Your task to perform on an android device: install app "ColorNote Notepad Notes" Image 0: 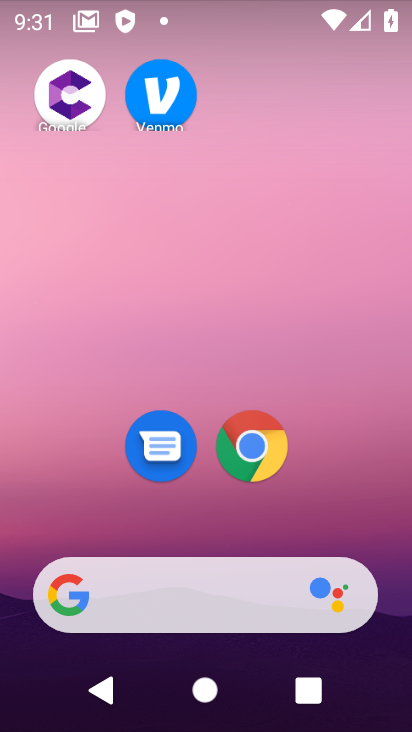
Step 0: drag from (196, 477) to (194, 62)
Your task to perform on an android device: install app "ColorNote Notepad Notes" Image 1: 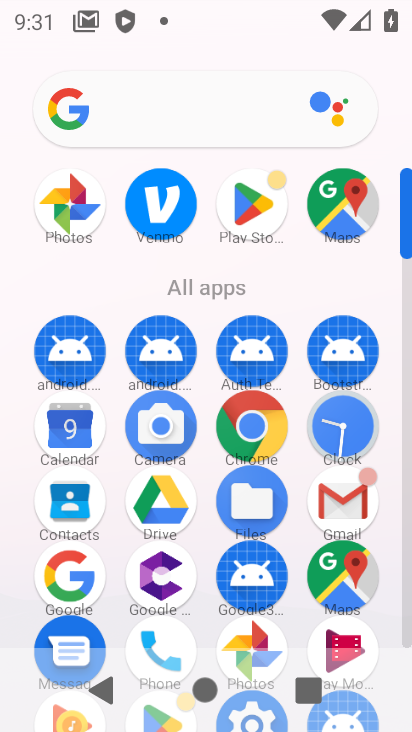
Step 1: click (250, 207)
Your task to perform on an android device: install app "ColorNote Notepad Notes" Image 2: 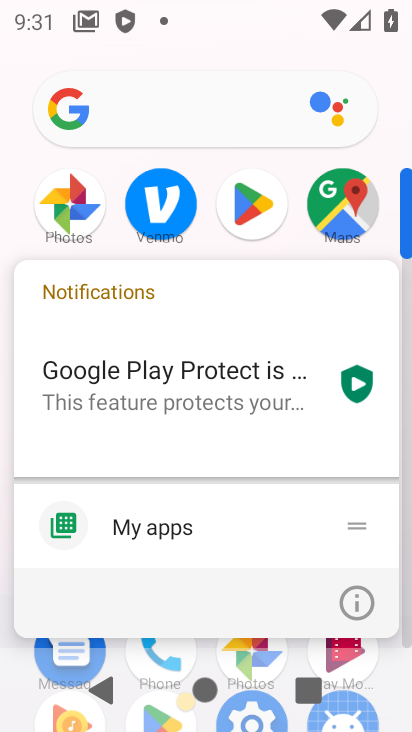
Step 2: click (252, 197)
Your task to perform on an android device: install app "ColorNote Notepad Notes" Image 3: 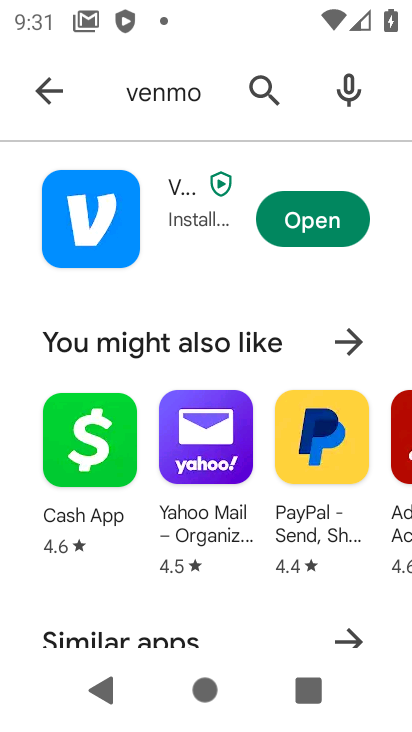
Step 3: click (273, 73)
Your task to perform on an android device: install app "ColorNote Notepad Notes" Image 4: 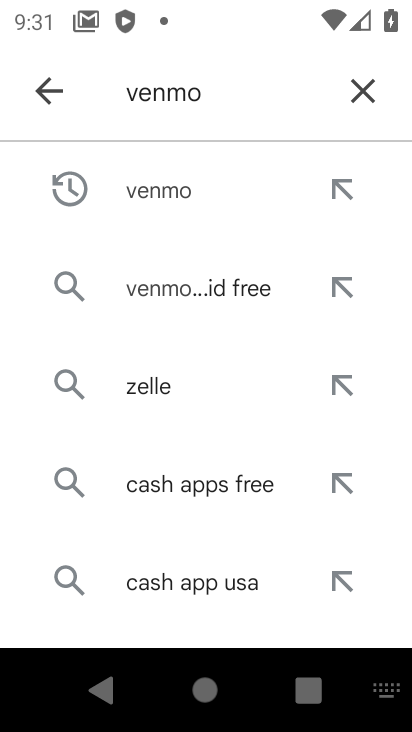
Step 4: click (370, 77)
Your task to perform on an android device: install app "ColorNote Notepad Notes" Image 5: 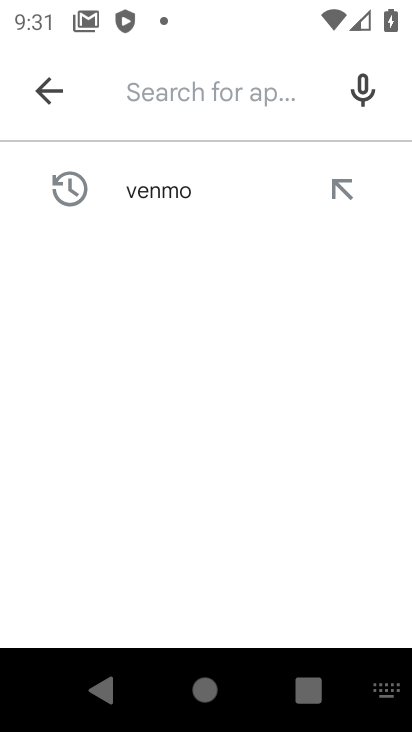
Step 5: click (195, 82)
Your task to perform on an android device: install app "ColorNote Notepad Notes" Image 6: 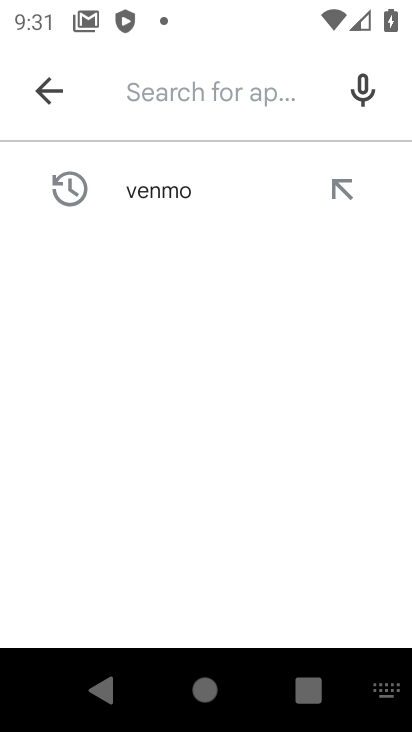
Step 6: click (191, 86)
Your task to perform on an android device: install app "ColorNote Notepad Notes" Image 7: 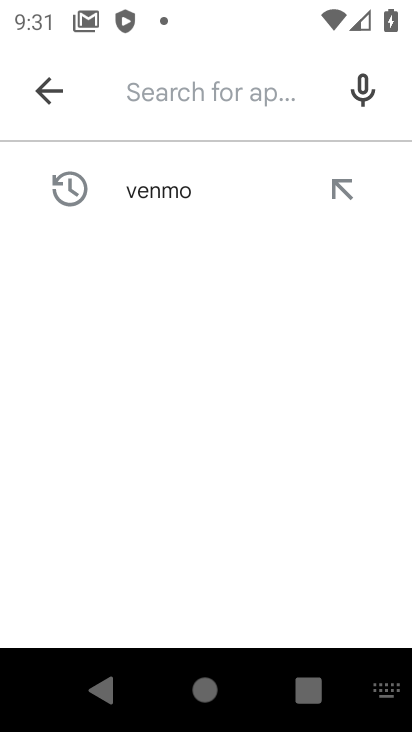
Step 7: click (174, 88)
Your task to perform on an android device: install app "ColorNote Notepad Notes" Image 8: 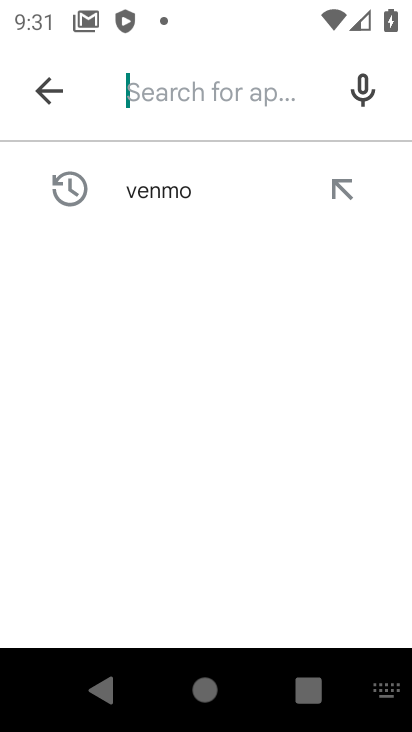
Step 8: type "ColorNote Notepad Notes"
Your task to perform on an android device: install app "ColorNote Notepad Notes" Image 9: 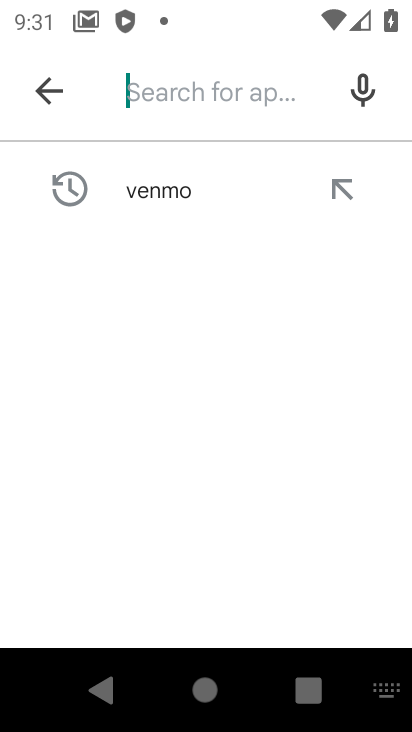
Step 9: click (292, 374)
Your task to perform on an android device: install app "ColorNote Notepad Notes" Image 10: 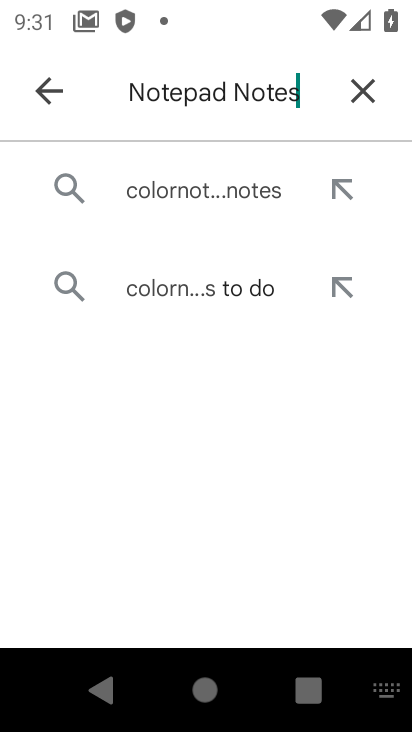
Step 10: click (175, 190)
Your task to perform on an android device: install app "ColorNote Notepad Notes" Image 11: 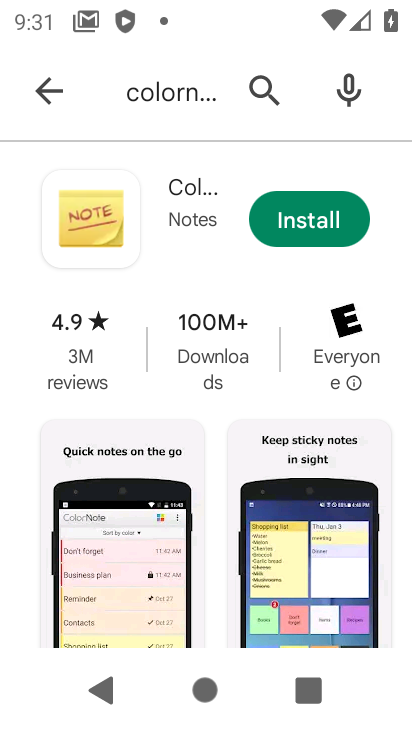
Step 11: click (307, 217)
Your task to perform on an android device: install app "ColorNote Notepad Notes" Image 12: 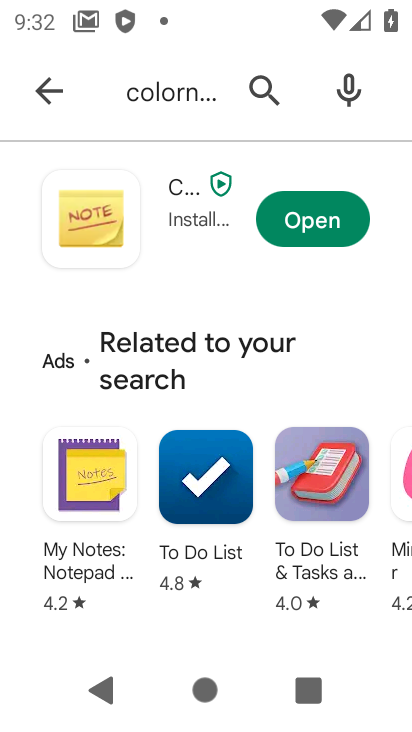
Step 12: task complete